Your task to perform on an android device: check android version Image 0: 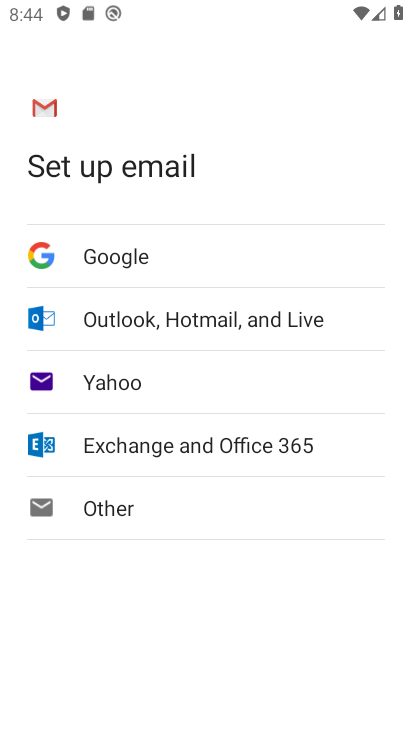
Step 0: press home button
Your task to perform on an android device: check android version Image 1: 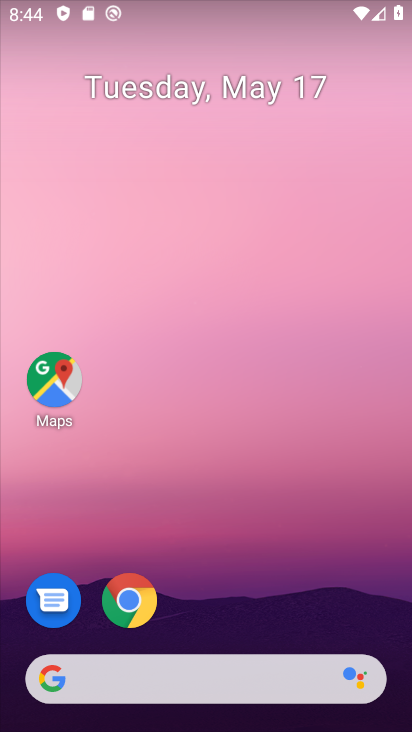
Step 1: drag from (263, 596) to (289, 159)
Your task to perform on an android device: check android version Image 2: 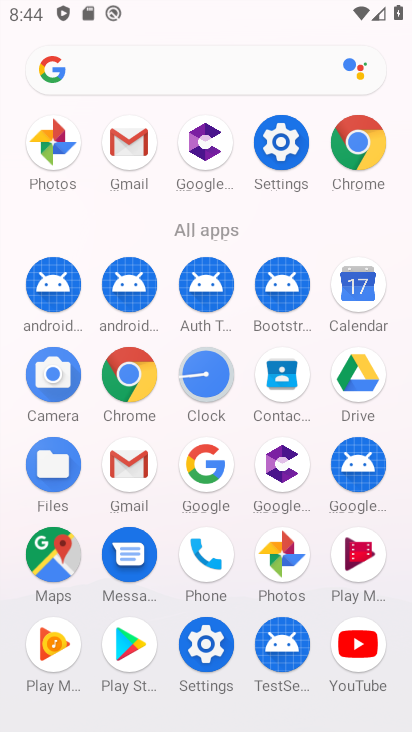
Step 2: click (279, 137)
Your task to perform on an android device: check android version Image 3: 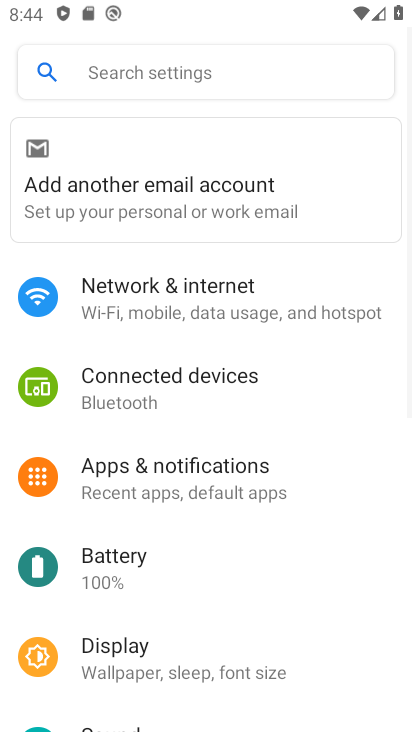
Step 3: drag from (269, 670) to (253, 205)
Your task to perform on an android device: check android version Image 4: 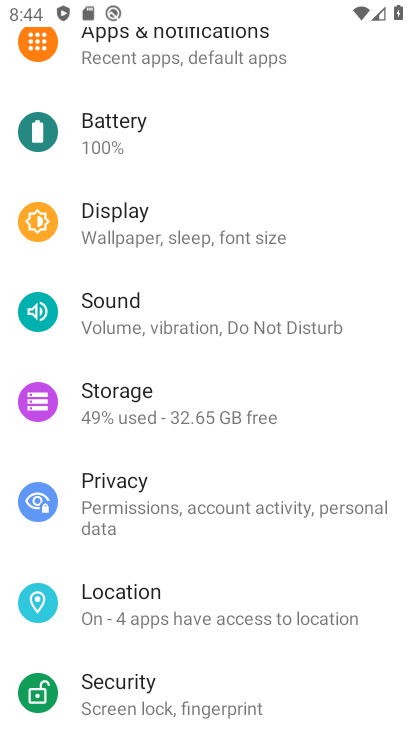
Step 4: drag from (224, 655) to (268, 240)
Your task to perform on an android device: check android version Image 5: 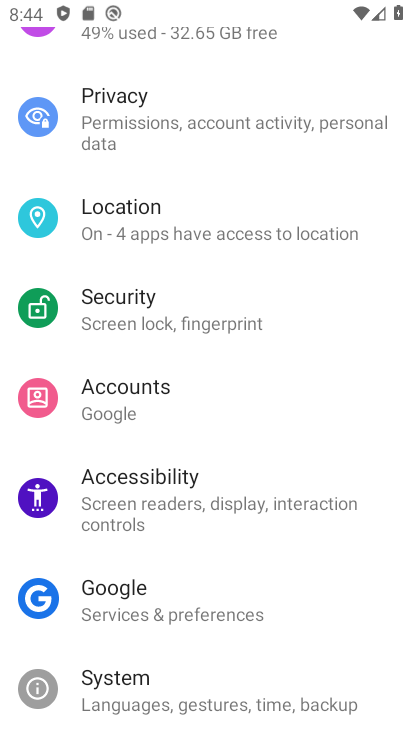
Step 5: drag from (255, 655) to (294, 258)
Your task to perform on an android device: check android version Image 6: 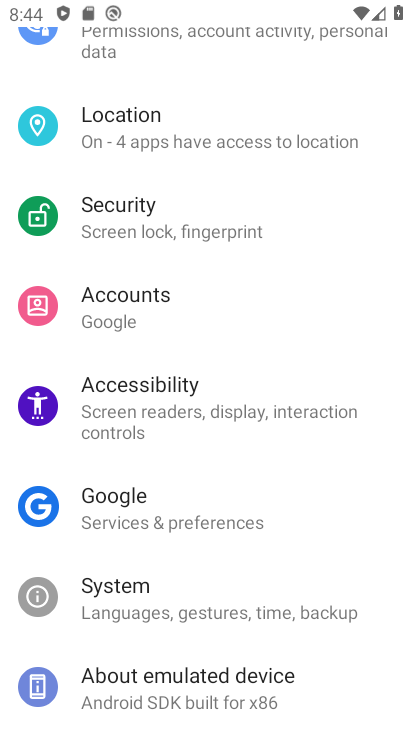
Step 6: click (213, 693)
Your task to perform on an android device: check android version Image 7: 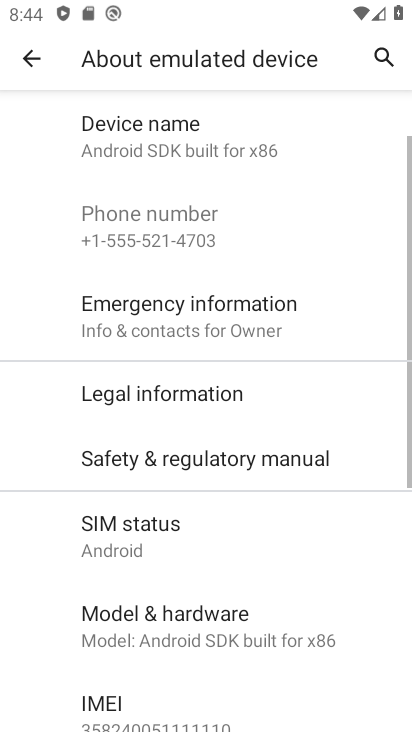
Step 7: drag from (236, 679) to (352, 243)
Your task to perform on an android device: check android version Image 8: 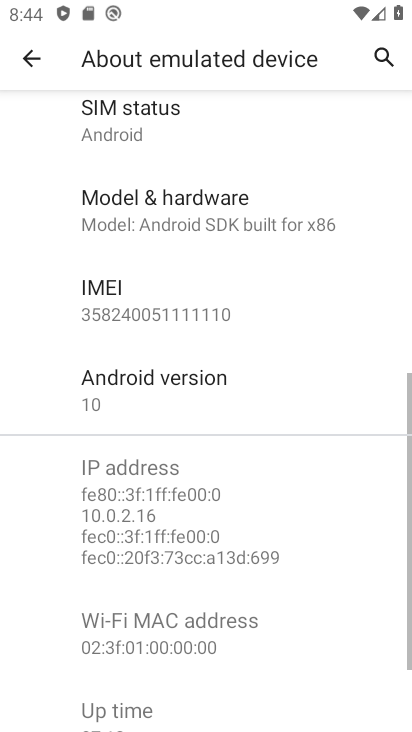
Step 8: click (148, 384)
Your task to perform on an android device: check android version Image 9: 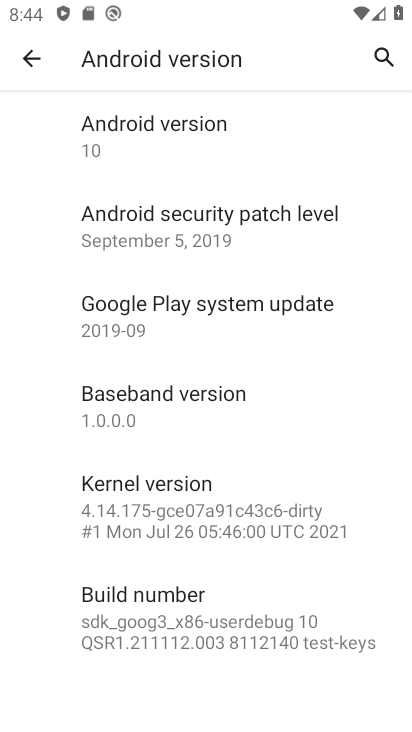
Step 9: task complete